Your task to perform on an android device: Go to ESPN.com Image 0: 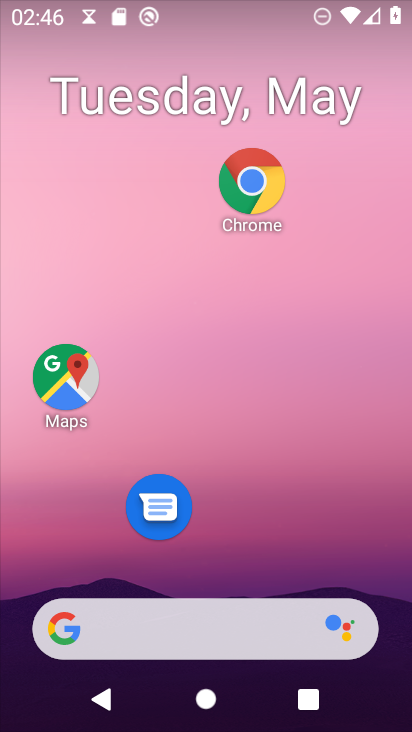
Step 0: click (268, 194)
Your task to perform on an android device: Go to ESPN.com Image 1: 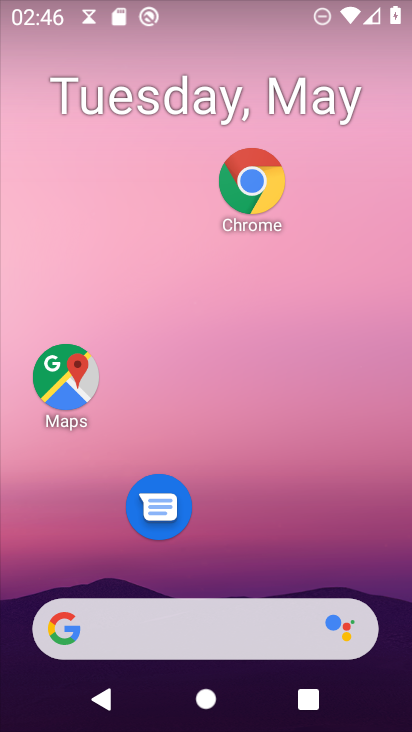
Step 1: click (246, 166)
Your task to perform on an android device: Go to ESPN.com Image 2: 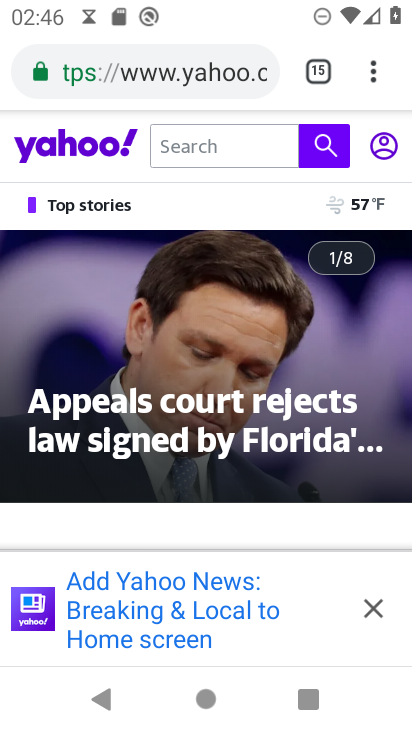
Step 2: click (365, 142)
Your task to perform on an android device: Go to ESPN.com Image 3: 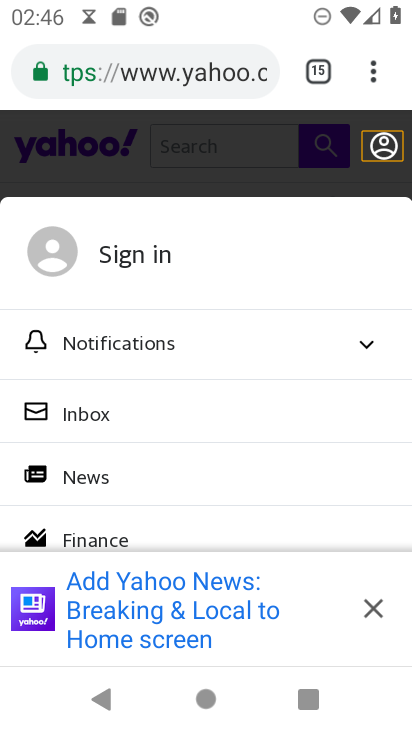
Step 3: click (375, 62)
Your task to perform on an android device: Go to ESPN.com Image 4: 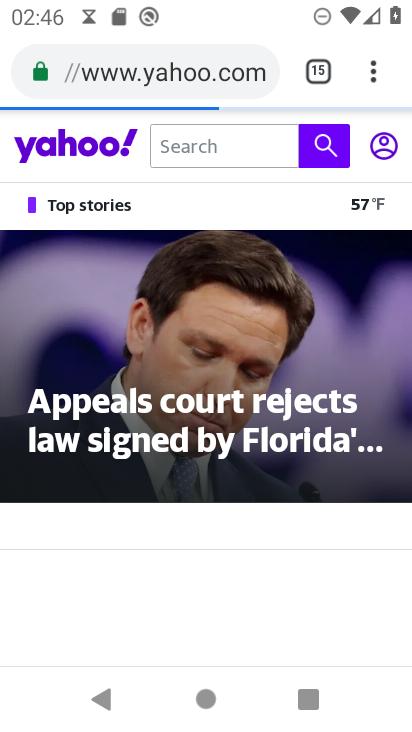
Step 4: click (356, 65)
Your task to perform on an android device: Go to ESPN.com Image 5: 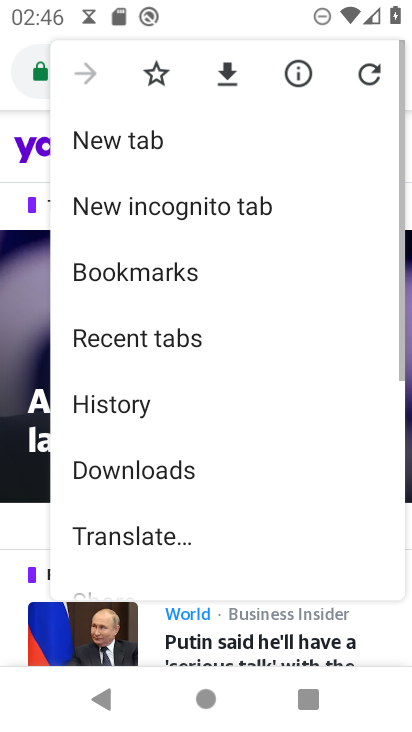
Step 5: click (154, 158)
Your task to perform on an android device: Go to ESPN.com Image 6: 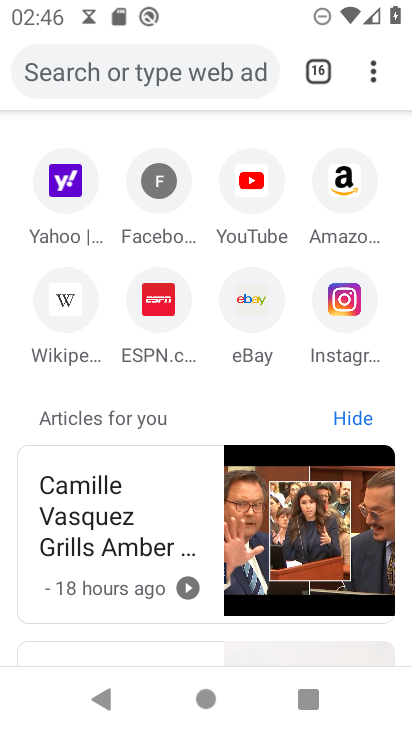
Step 6: click (156, 310)
Your task to perform on an android device: Go to ESPN.com Image 7: 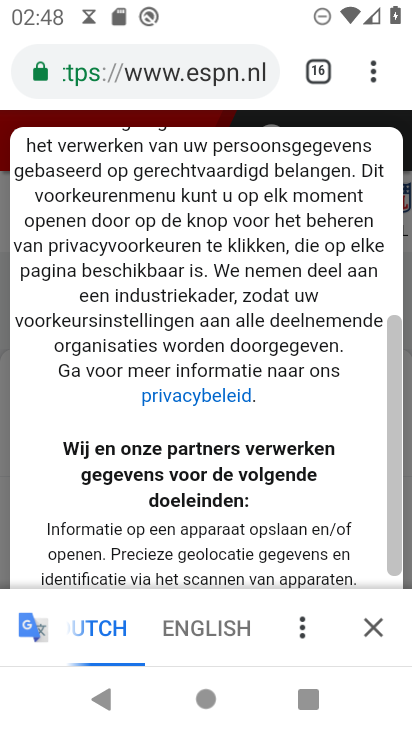
Step 7: task complete